Your task to perform on an android device: change the clock display to analog Image 0: 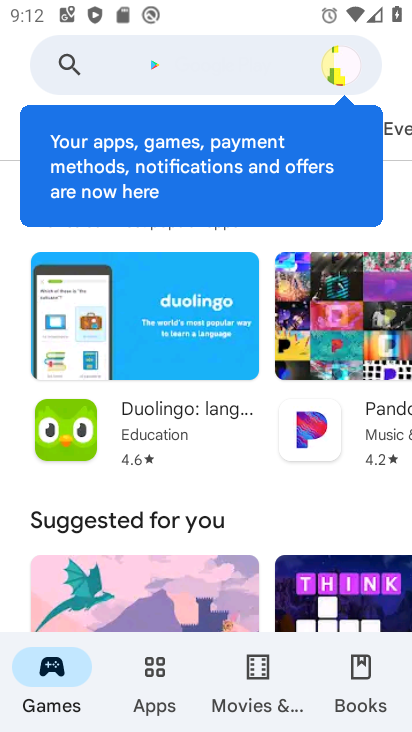
Step 0: press home button
Your task to perform on an android device: change the clock display to analog Image 1: 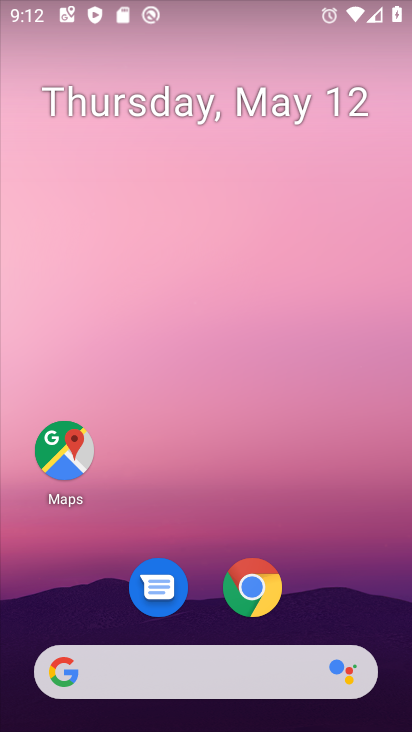
Step 1: drag from (304, 607) to (299, 210)
Your task to perform on an android device: change the clock display to analog Image 2: 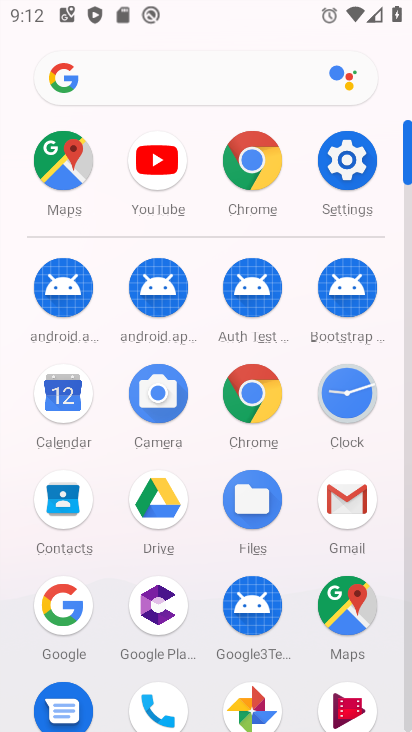
Step 2: click (345, 390)
Your task to perform on an android device: change the clock display to analog Image 3: 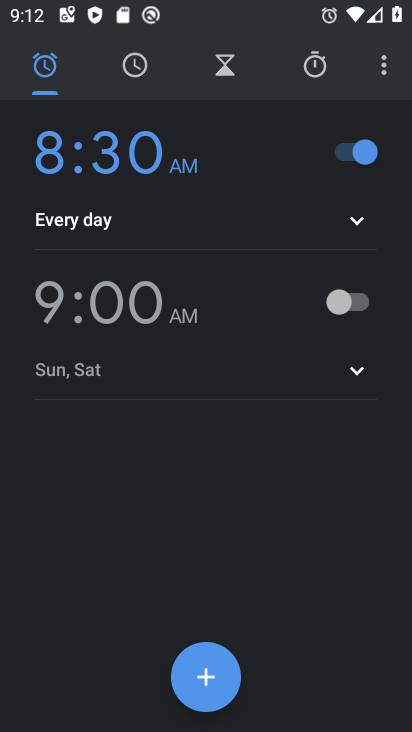
Step 3: click (366, 59)
Your task to perform on an android device: change the clock display to analog Image 4: 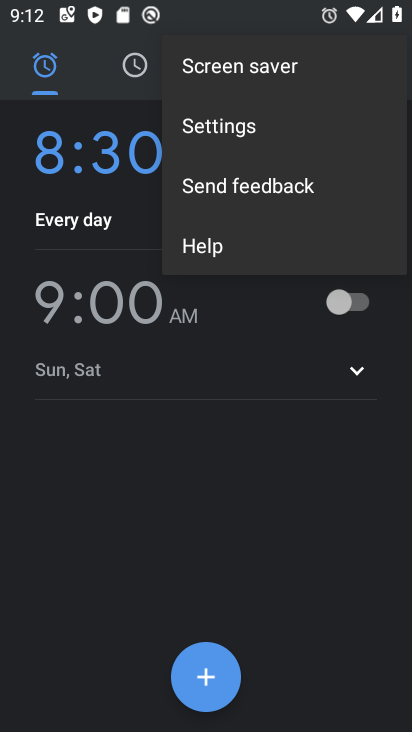
Step 4: click (207, 134)
Your task to perform on an android device: change the clock display to analog Image 5: 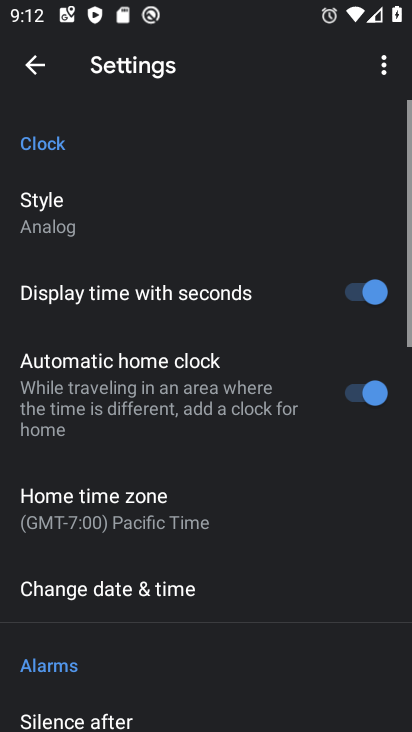
Step 5: click (59, 183)
Your task to perform on an android device: change the clock display to analog Image 6: 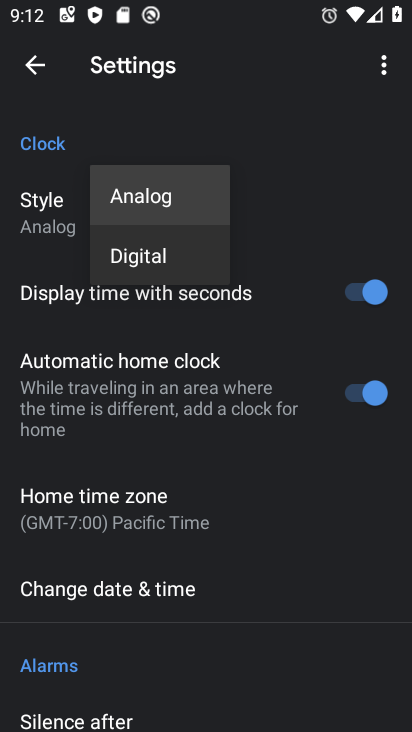
Step 6: click (152, 250)
Your task to perform on an android device: change the clock display to analog Image 7: 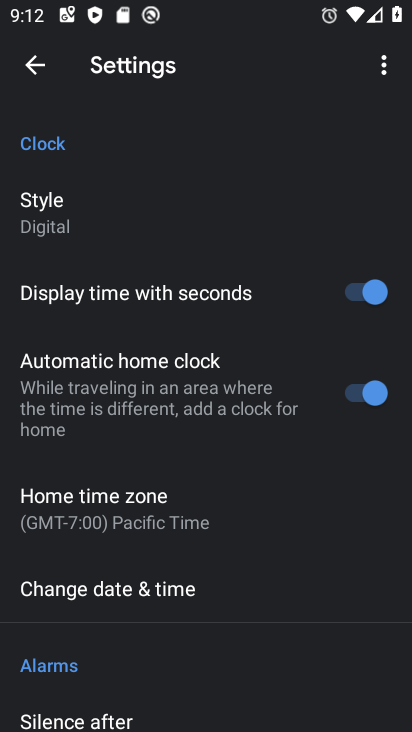
Step 7: task complete